Your task to perform on an android device: Go to Google Image 0: 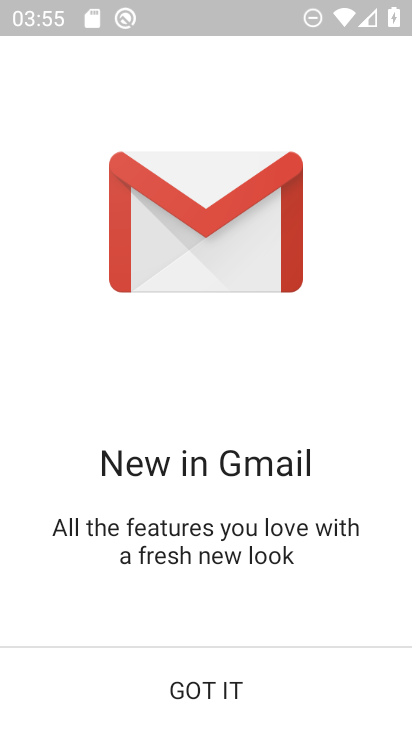
Step 0: press home button
Your task to perform on an android device: Go to Google Image 1: 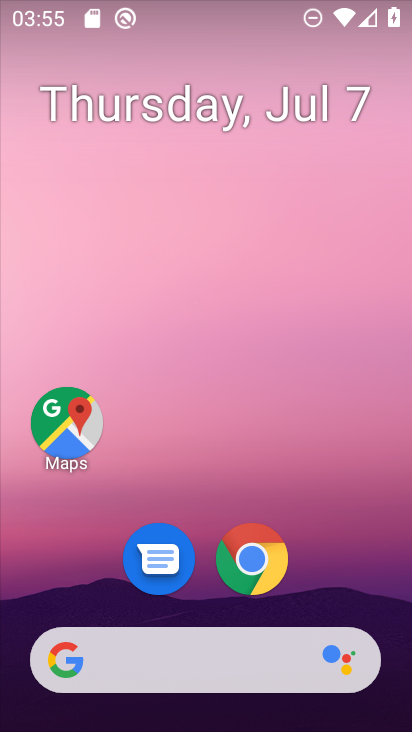
Step 1: drag from (365, 572) to (348, 247)
Your task to perform on an android device: Go to Google Image 2: 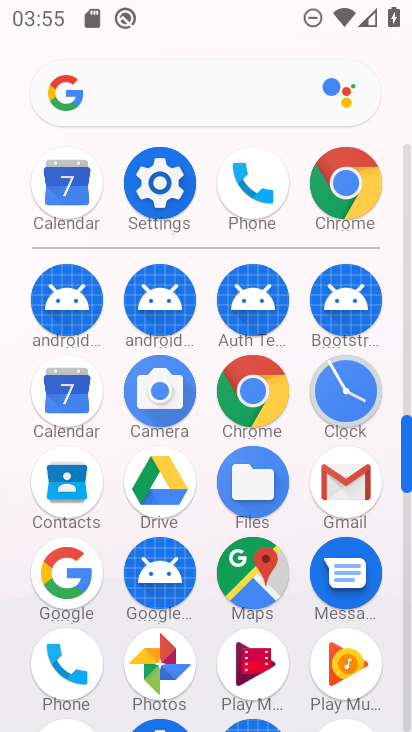
Step 2: click (82, 572)
Your task to perform on an android device: Go to Google Image 3: 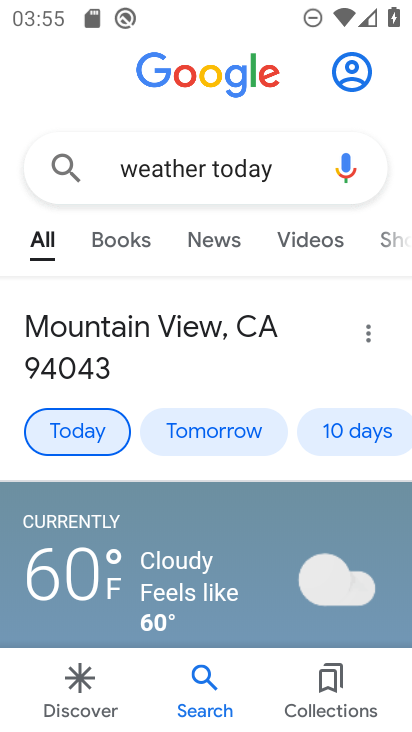
Step 3: task complete